Your task to perform on an android device: Clear the shopping cart on newegg. Add macbook air to the cart on newegg, then select checkout. Image 0: 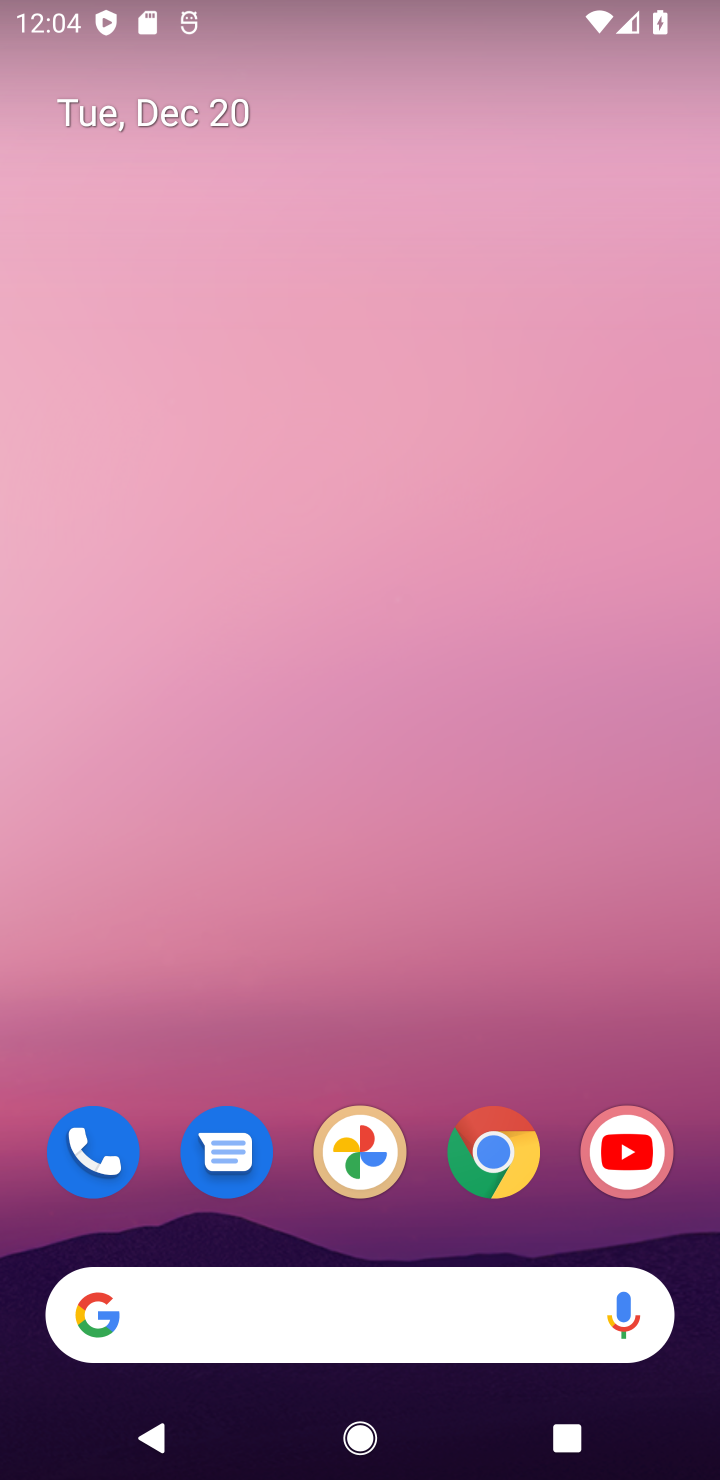
Step 0: click (499, 1131)
Your task to perform on an android device: Clear the shopping cart on newegg. Add macbook air to the cart on newegg, then select checkout. Image 1: 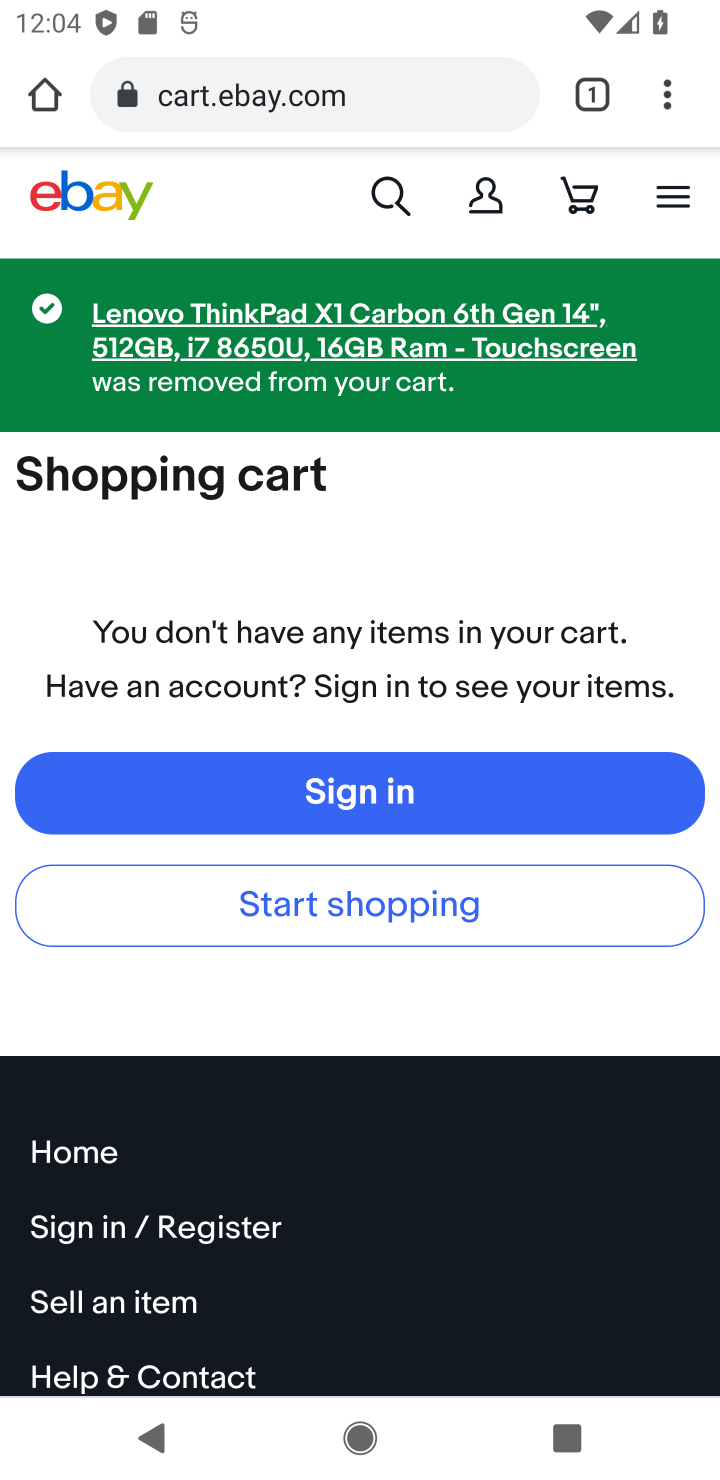
Step 1: click (291, 80)
Your task to perform on an android device: Clear the shopping cart on newegg. Add macbook air to the cart on newegg, then select checkout. Image 2: 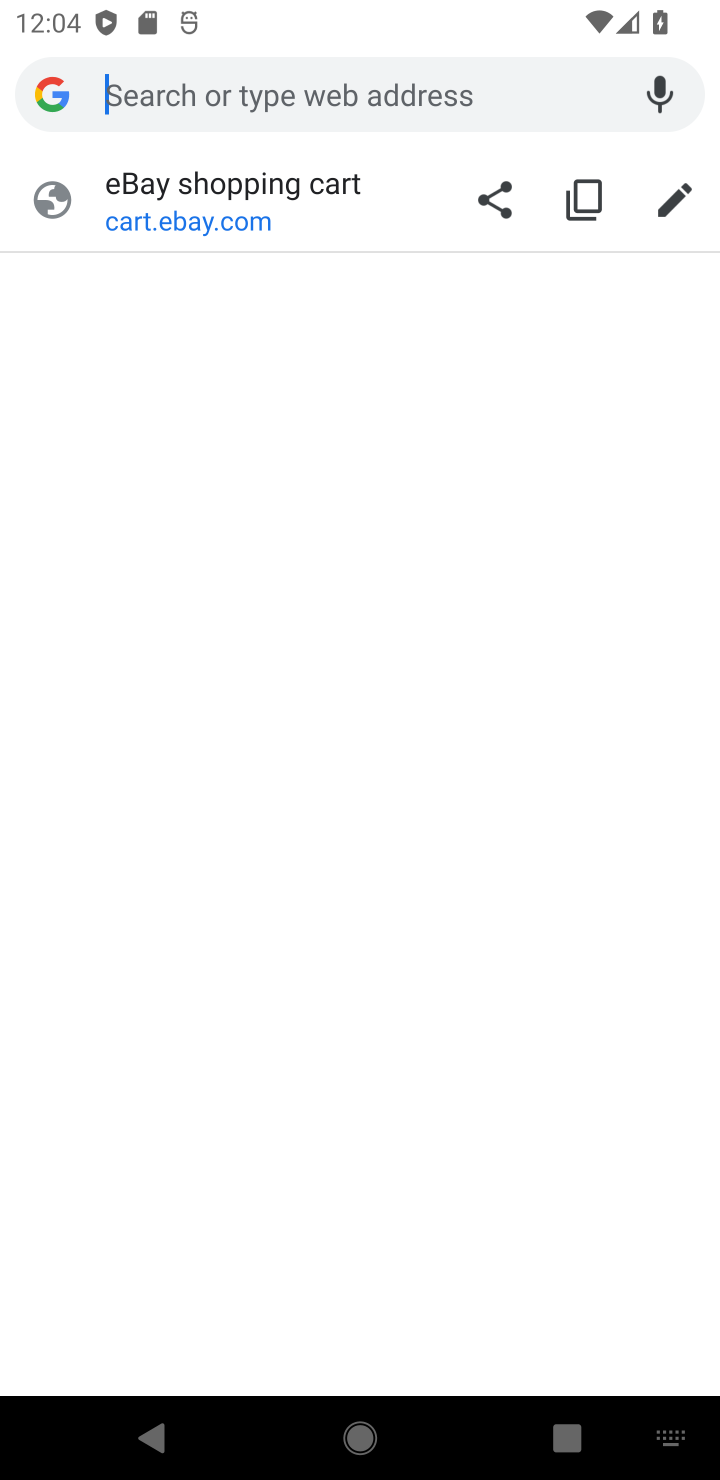
Step 2: type "newegg"
Your task to perform on an android device: Clear the shopping cart on newegg. Add macbook air to the cart on newegg, then select checkout. Image 3: 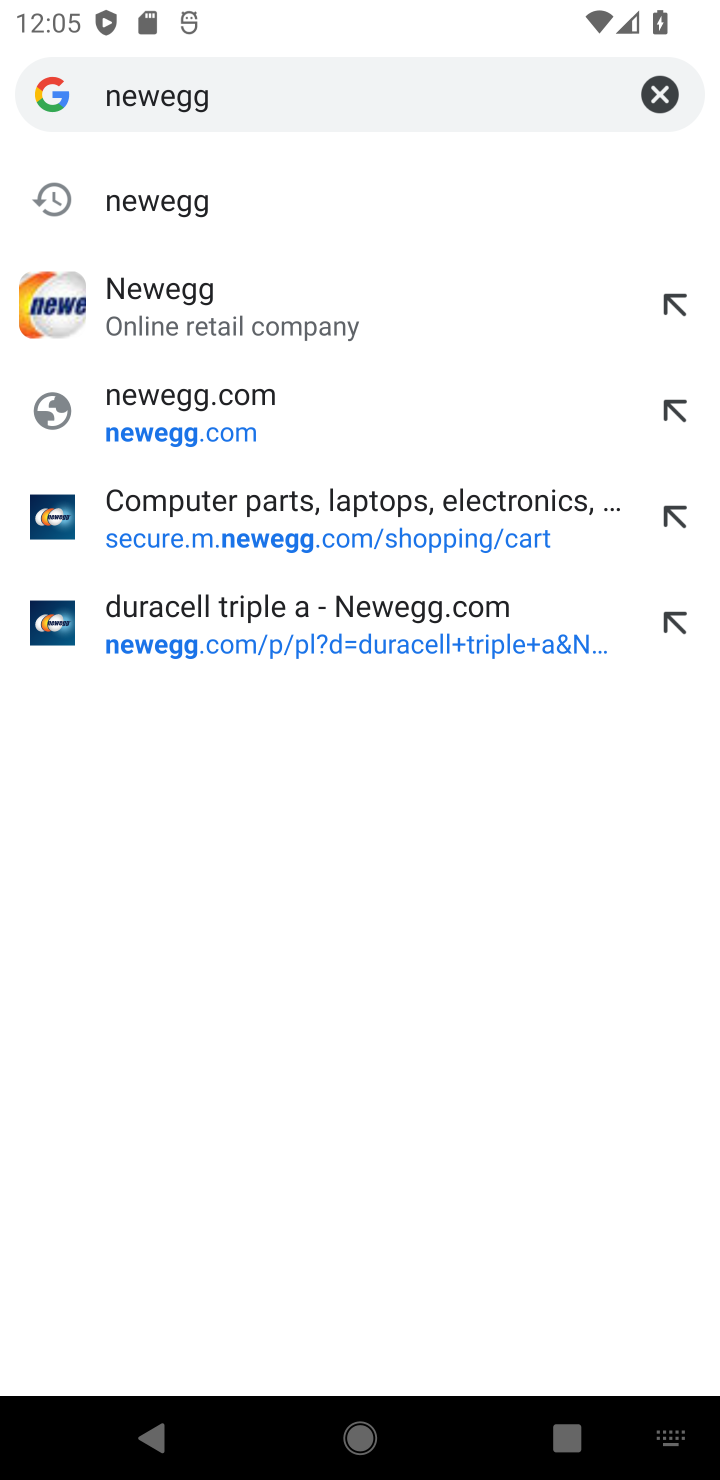
Step 3: type "'"
Your task to perform on an android device: Clear the shopping cart on newegg. Add macbook air to the cart on newegg, then select checkout. Image 4: 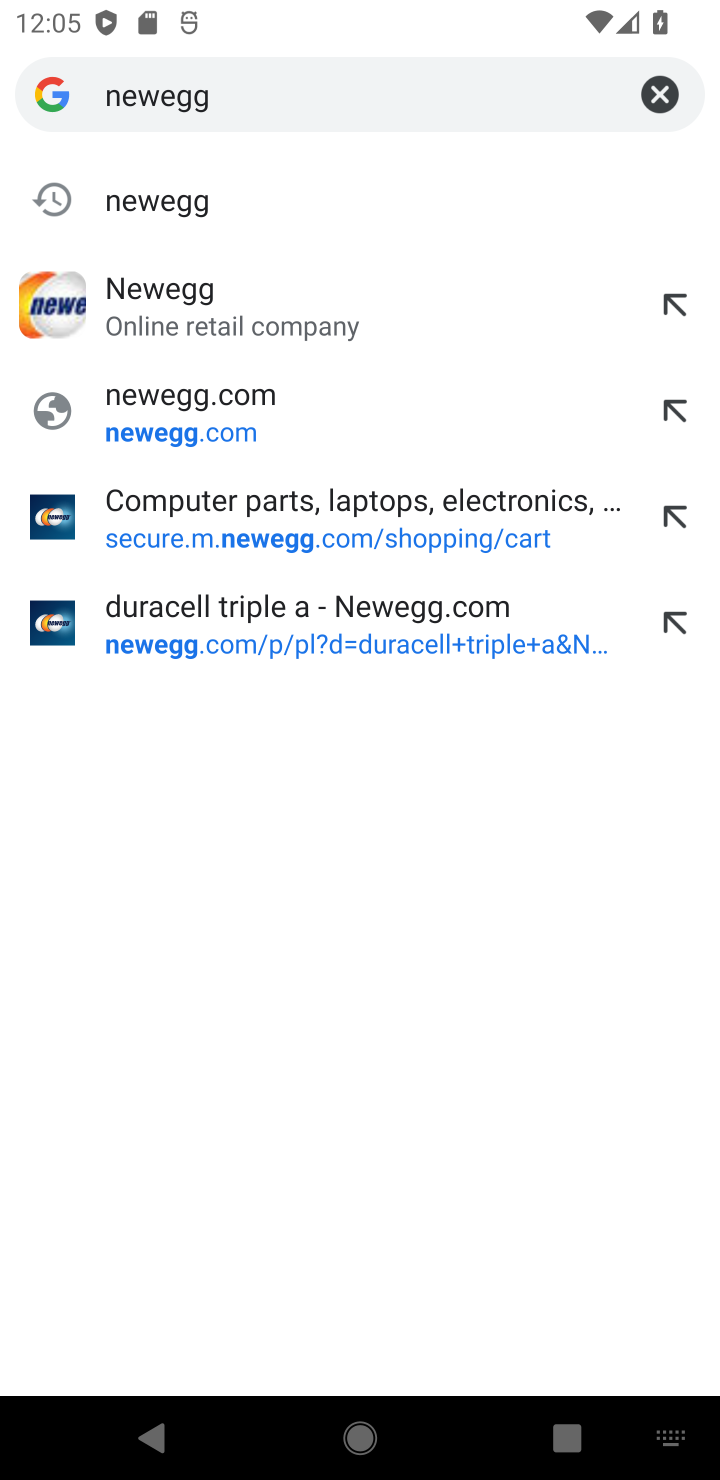
Step 4: click (135, 312)
Your task to perform on an android device: Clear the shopping cart on newegg. Add macbook air to the cart on newegg, then select checkout. Image 5: 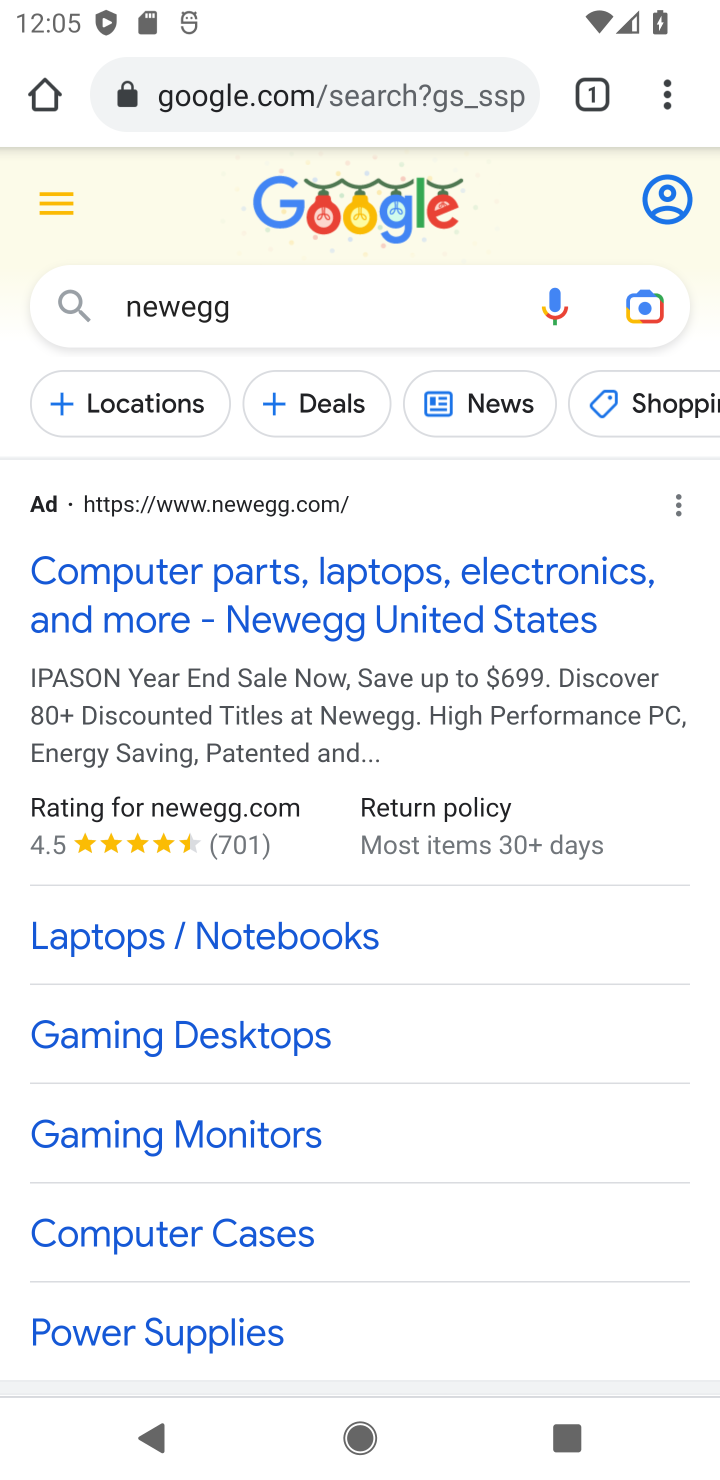
Step 5: click (285, 602)
Your task to perform on an android device: Clear the shopping cart on newegg. Add macbook air to the cart on newegg, then select checkout. Image 6: 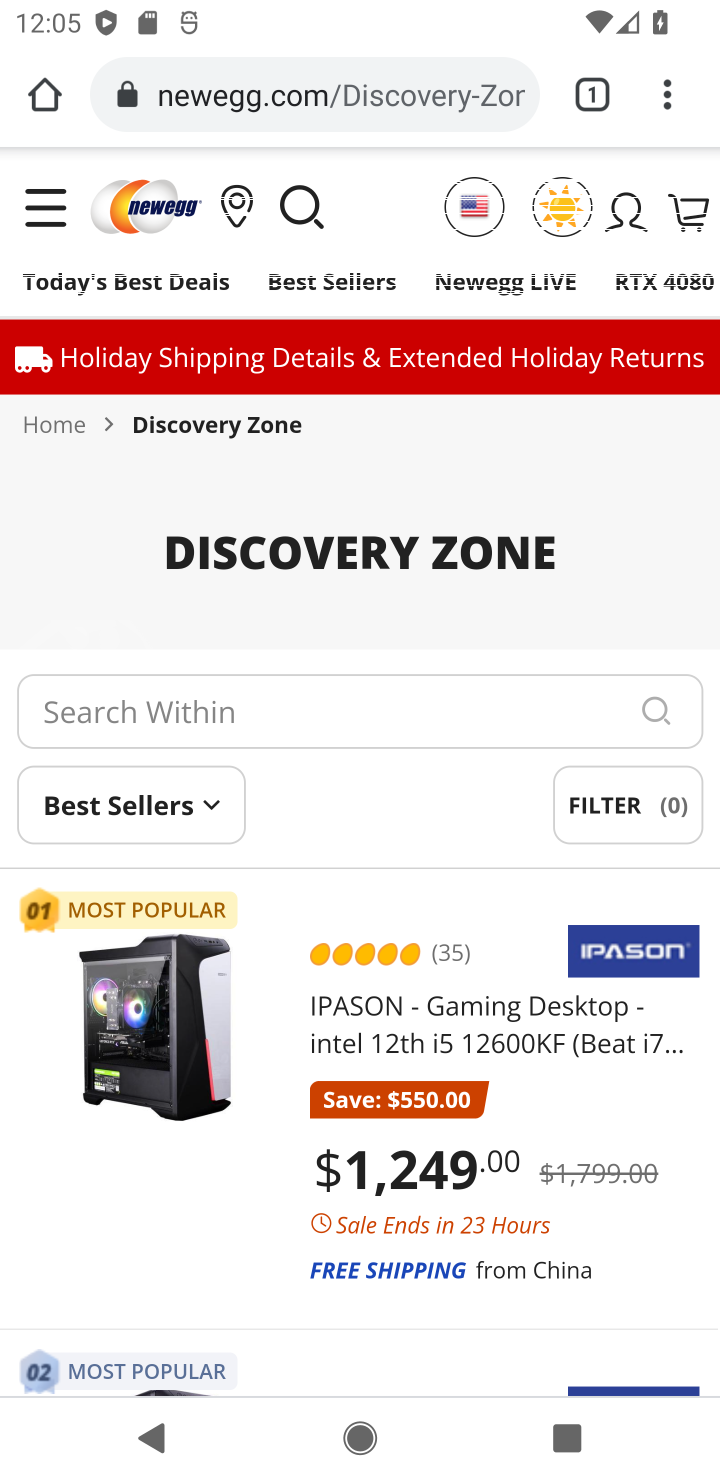
Step 6: click (151, 221)
Your task to perform on an android device: Clear the shopping cart on newegg. Add macbook air to the cart on newegg, then select checkout. Image 7: 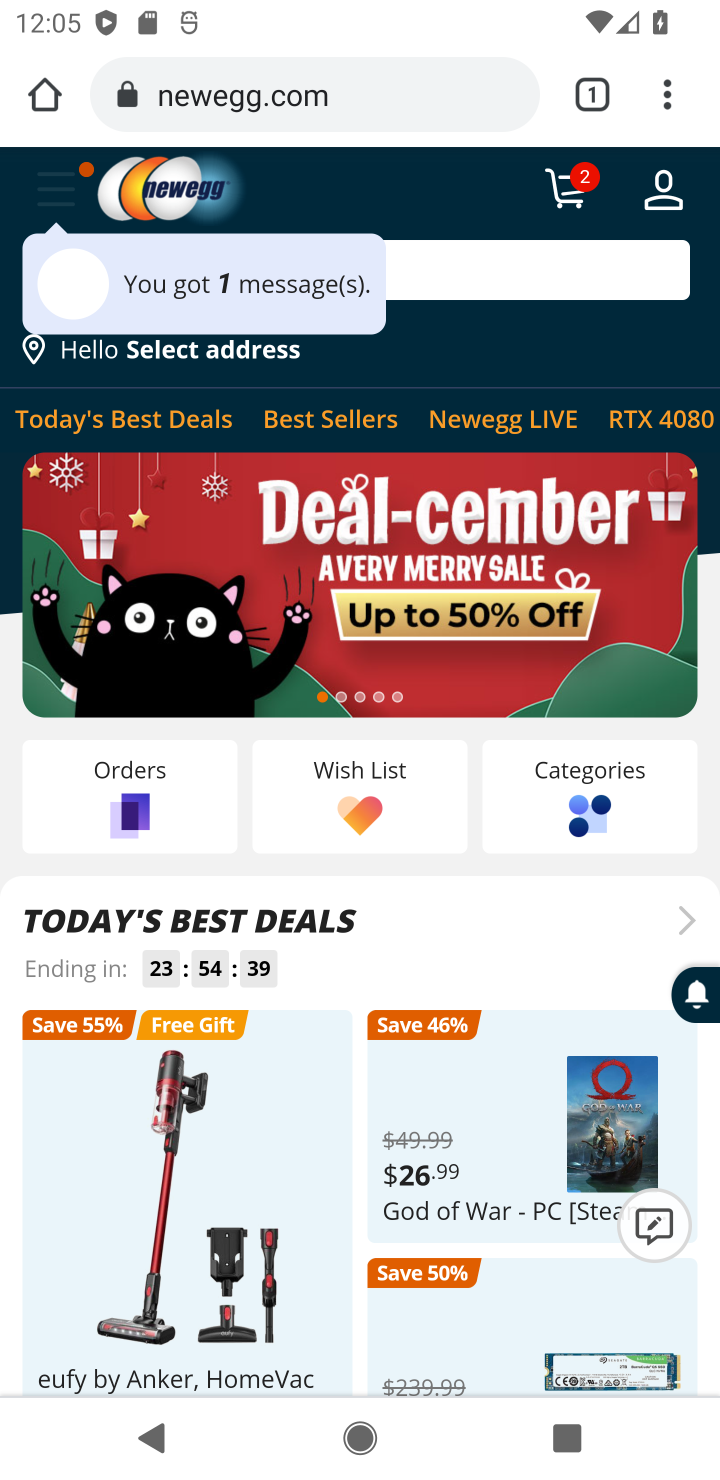
Step 7: click (475, 267)
Your task to perform on an android device: Clear the shopping cart on newegg. Add macbook air to the cart on newegg, then select checkout. Image 8: 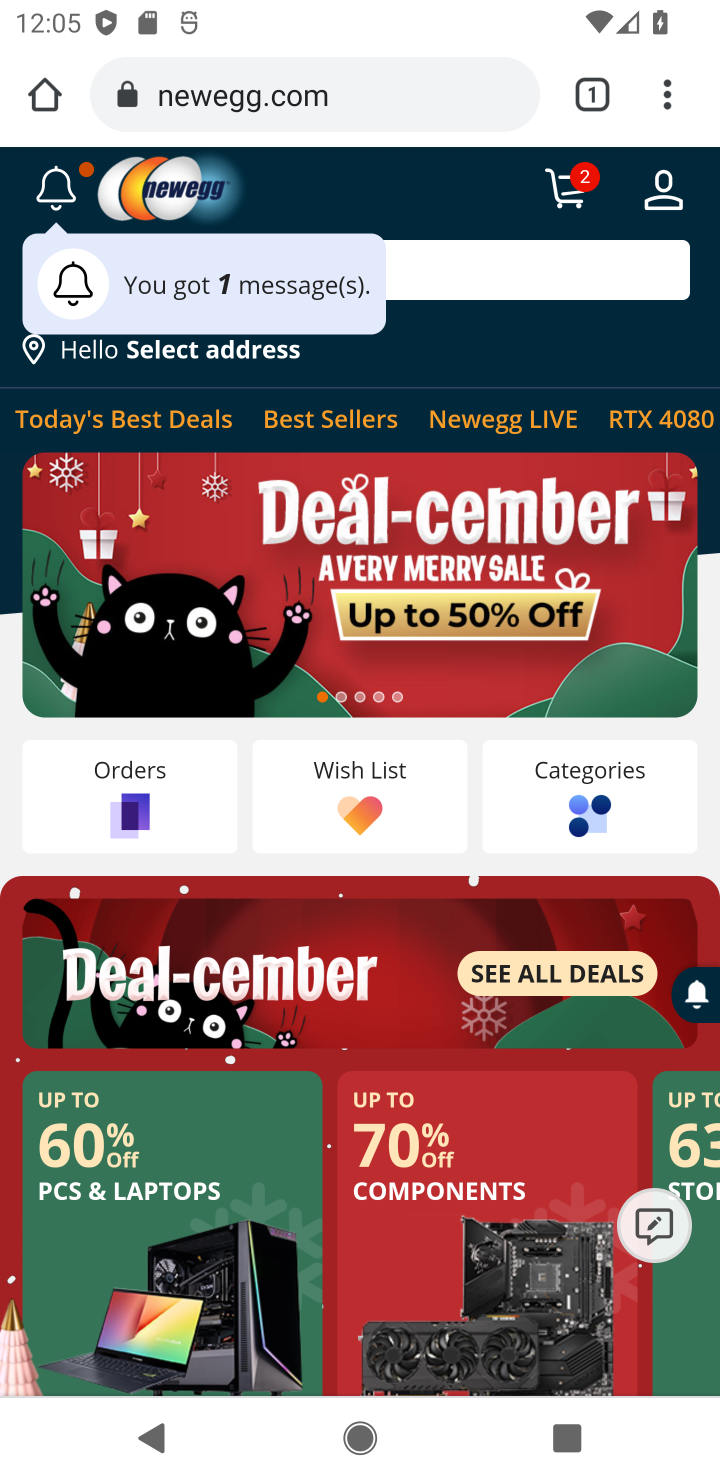
Step 8: click (467, 280)
Your task to perform on an android device: Clear the shopping cart on newegg. Add macbook air to the cart on newegg, then select checkout. Image 9: 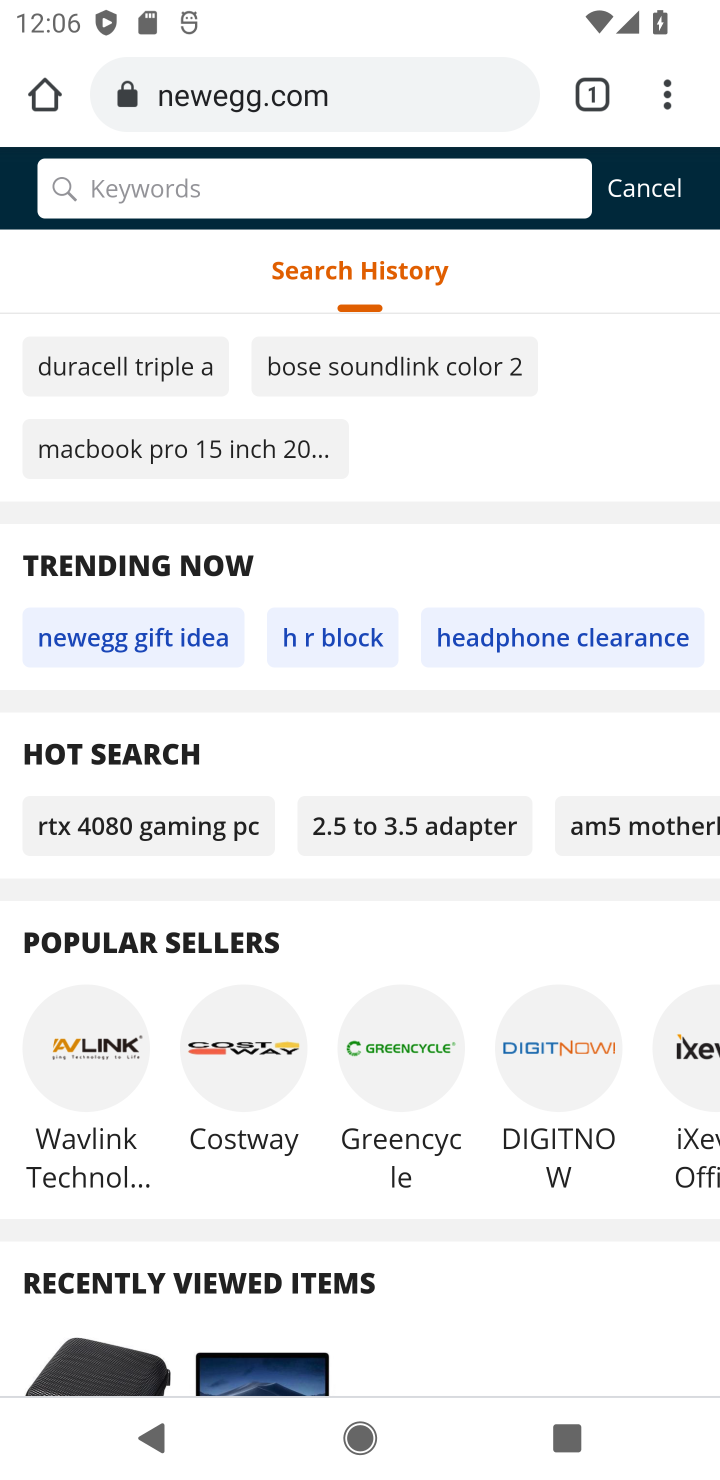
Step 9: type "macbook air"
Your task to perform on an android device: Clear the shopping cart on newegg. Add macbook air to the cart on newegg, then select checkout. Image 10: 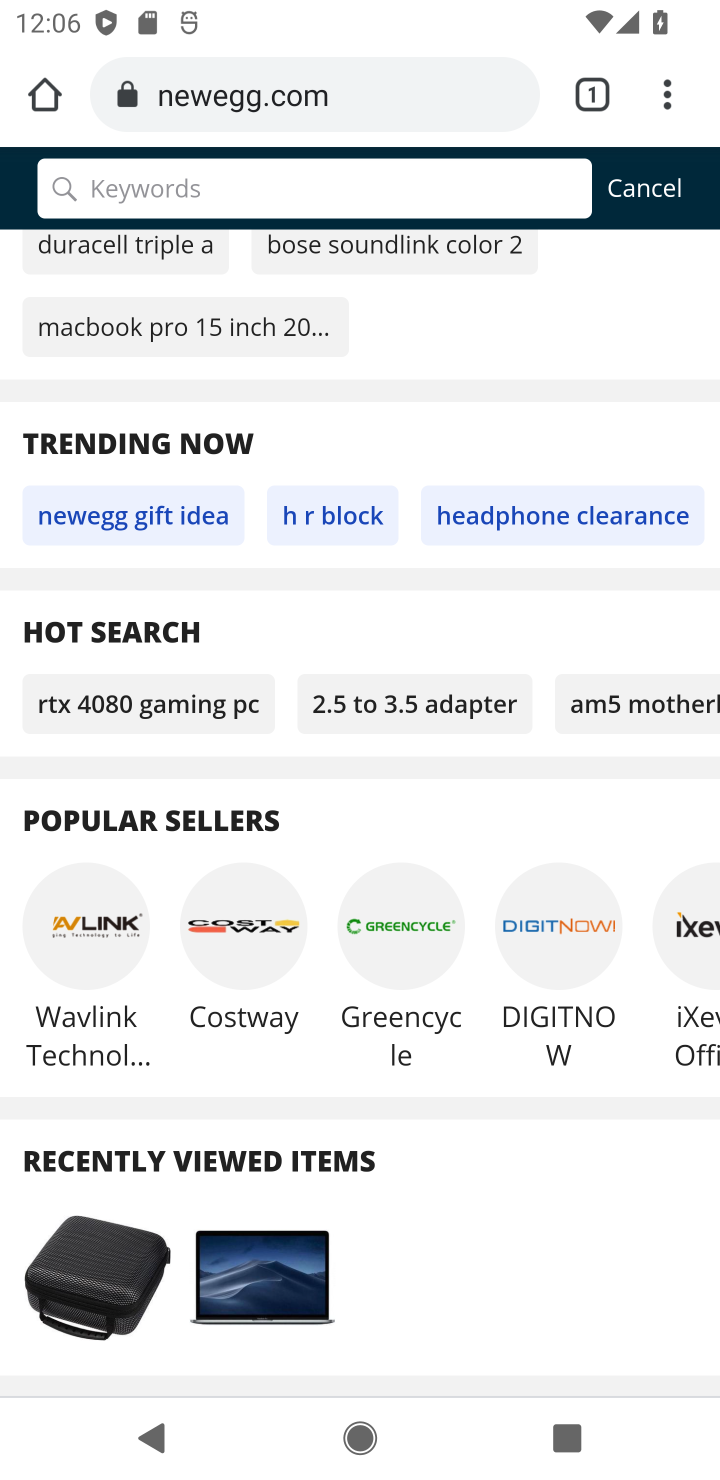
Step 10: click (195, 188)
Your task to perform on an android device: Clear the shopping cart on newegg. Add macbook air to the cart on newegg, then select checkout. Image 11: 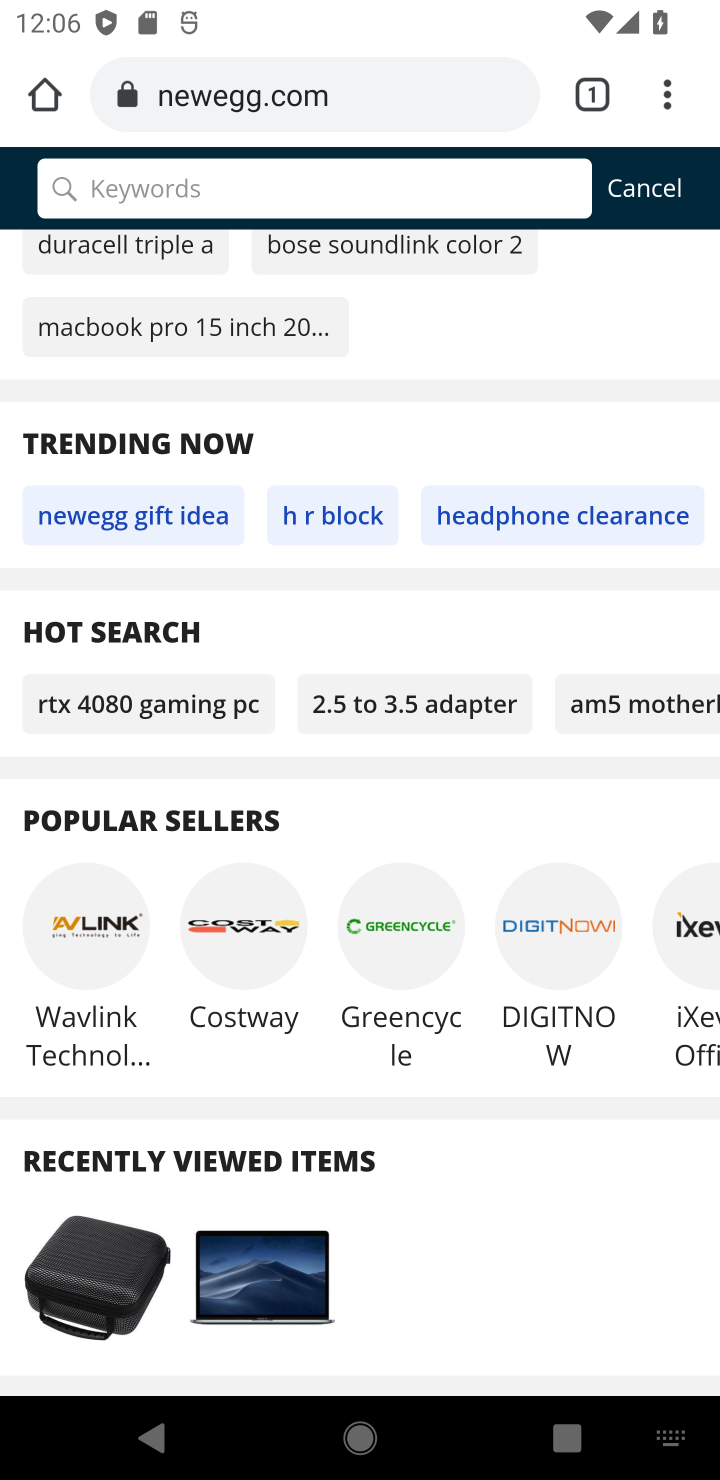
Step 11: type "macbook air"
Your task to perform on an android device: Clear the shopping cart on newegg. Add macbook air to the cart on newegg, then select checkout. Image 12: 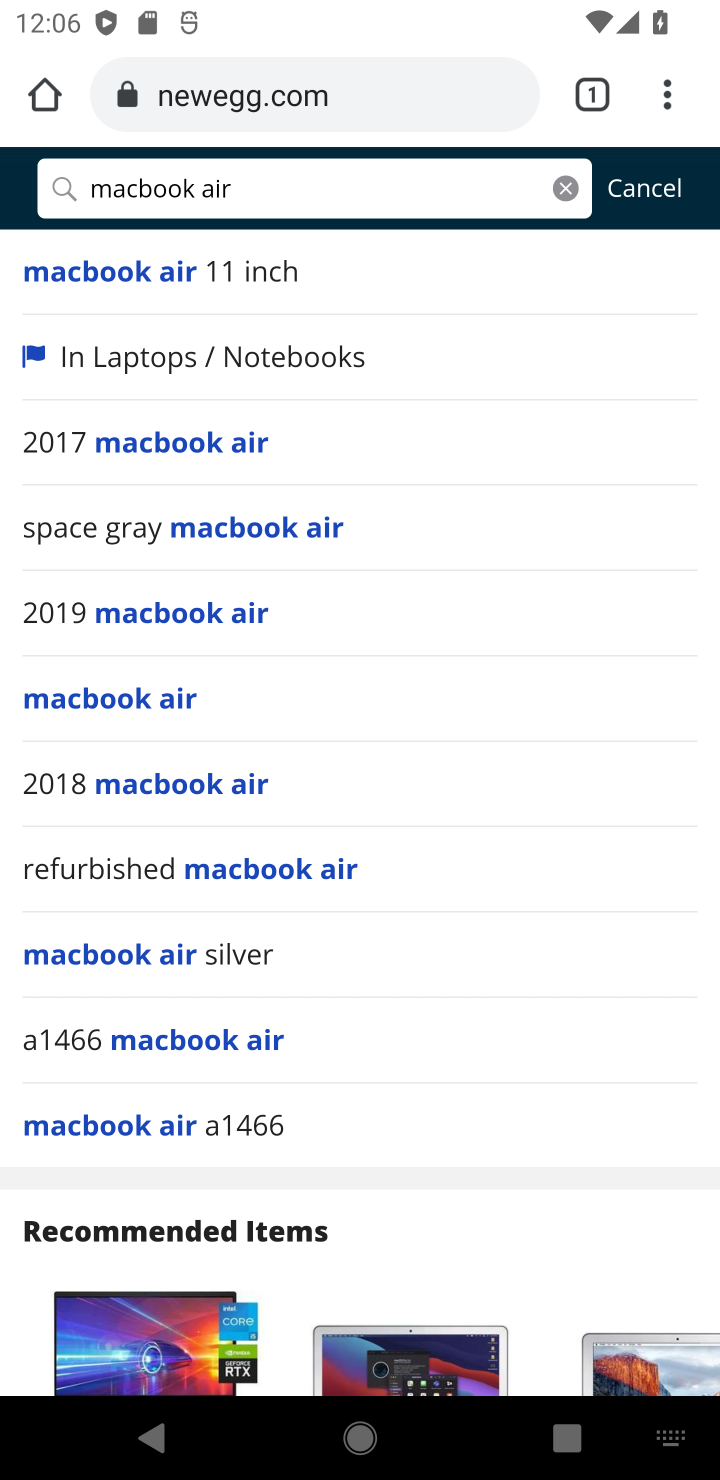
Step 12: click (137, 272)
Your task to perform on an android device: Clear the shopping cart on newegg. Add macbook air to the cart on newegg, then select checkout. Image 13: 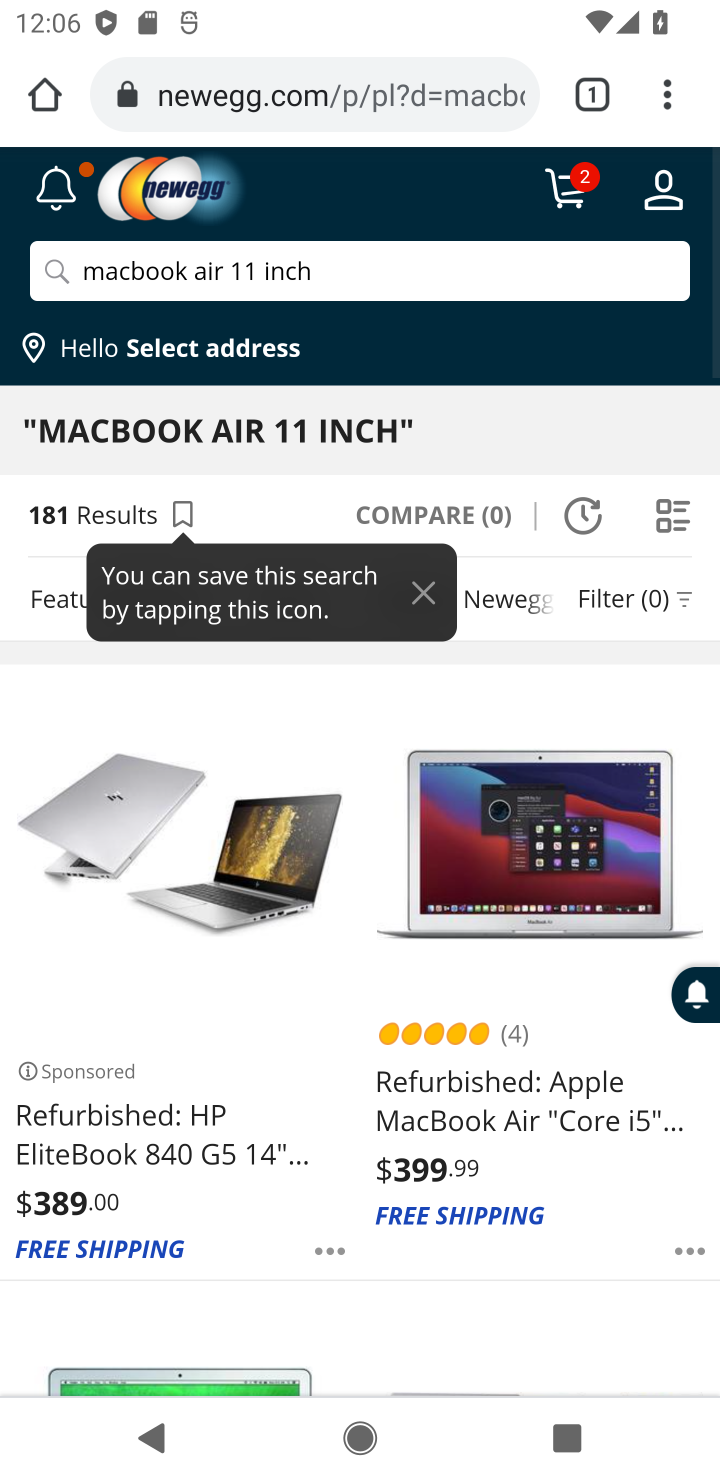
Step 13: click (190, 914)
Your task to perform on an android device: Clear the shopping cart on newegg. Add macbook air to the cart on newegg, then select checkout. Image 14: 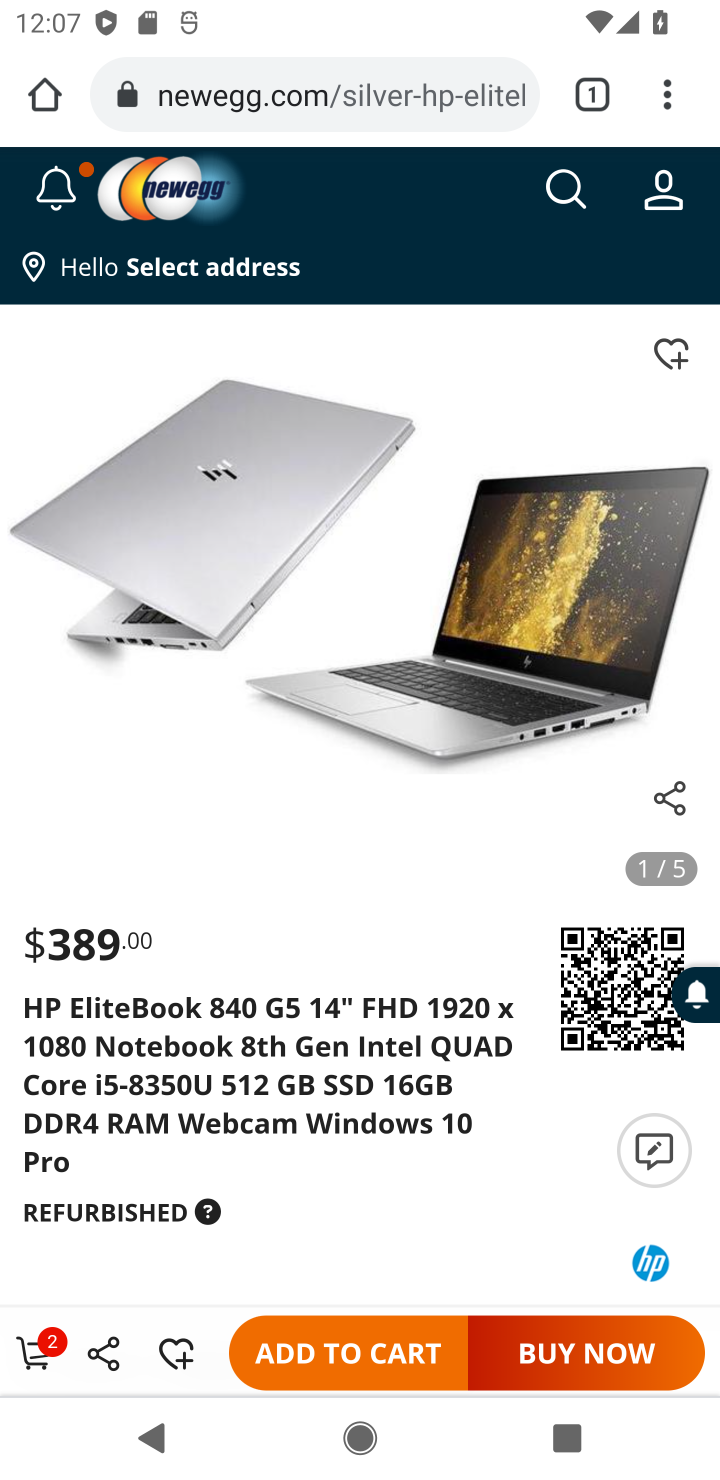
Step 14: click (345, 1358)
Your task to perform on an android device: Clear the shopping cart on newegg. Add macbook air to the cart on newegg, then select checkout. Image 15: 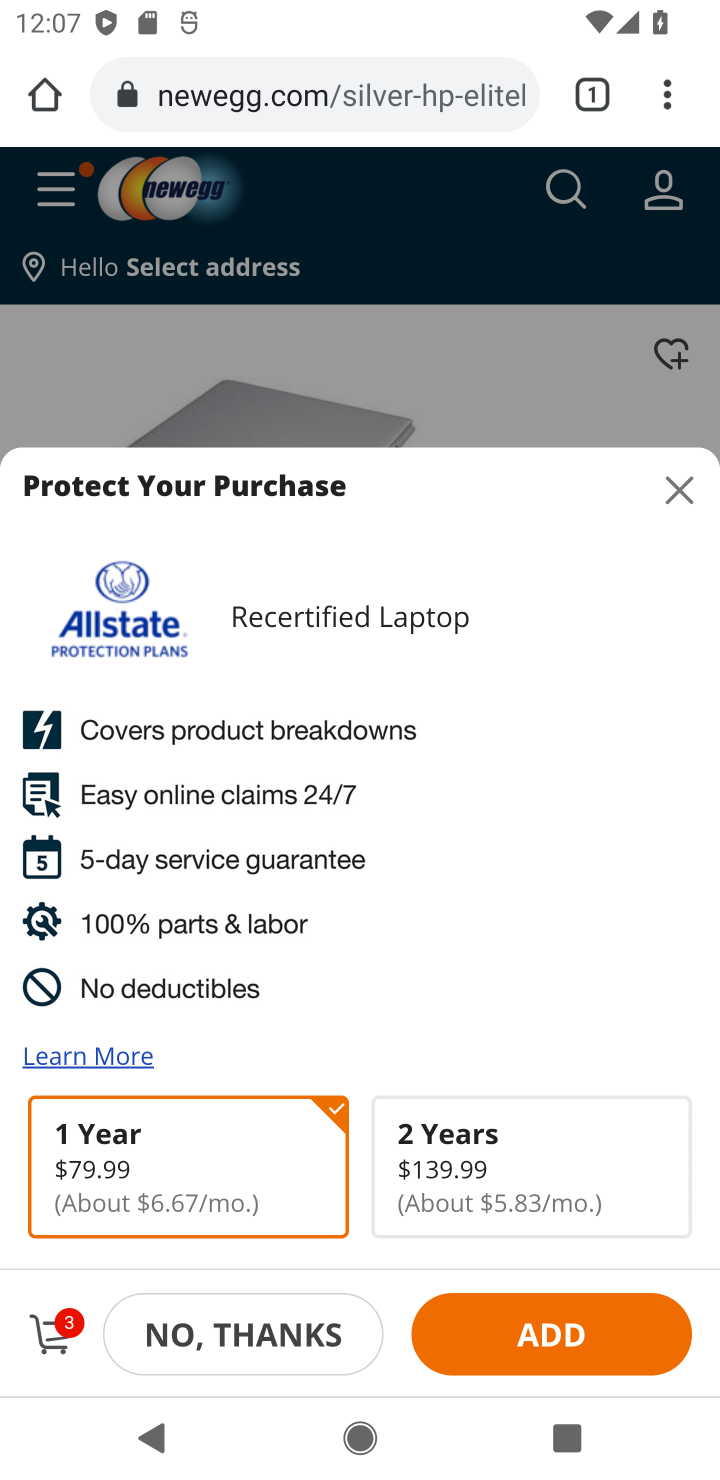
Step 15: task complete